Your task to perform on an android device: Clear the shopping cart on amazon. Image 0: 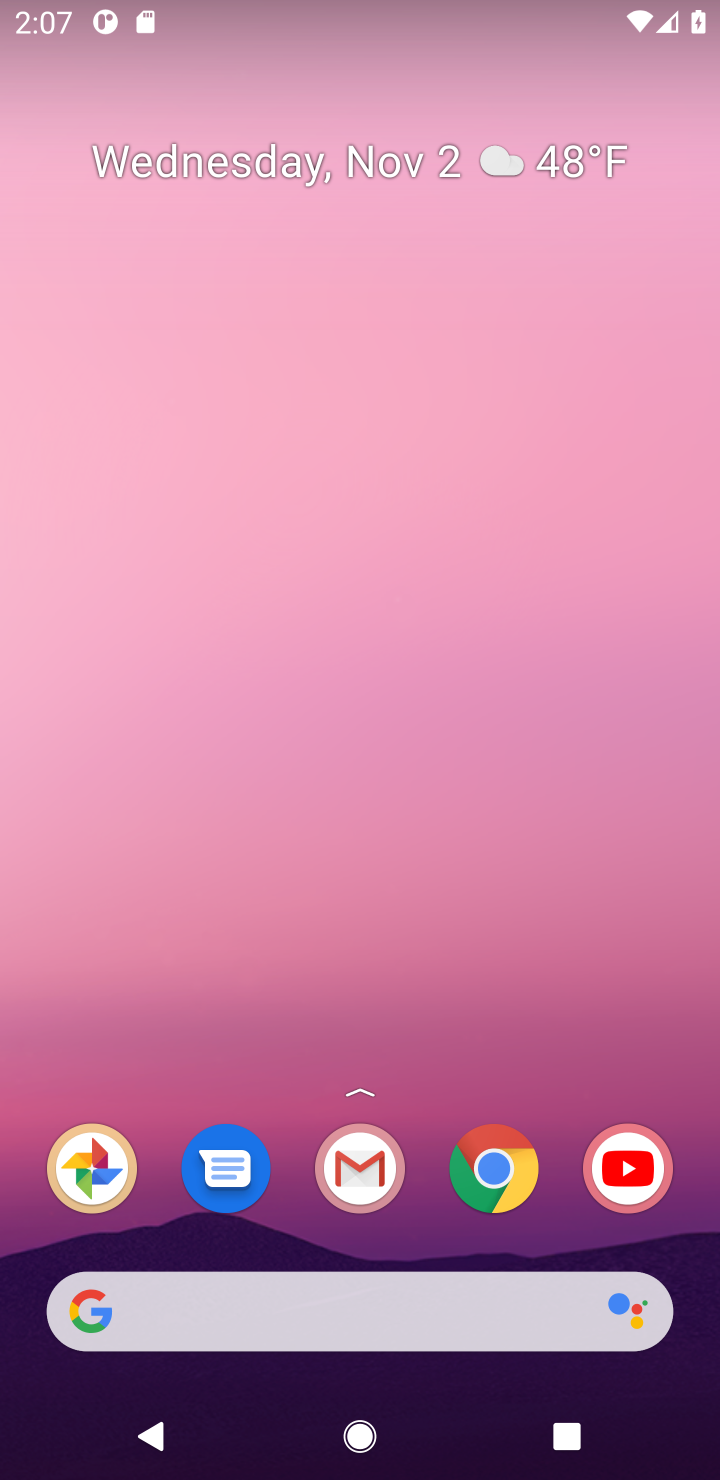
Step 0: click (324, 1310)
Your task to perform on an android device: Clear the shopping cart on amazon. Image 1: 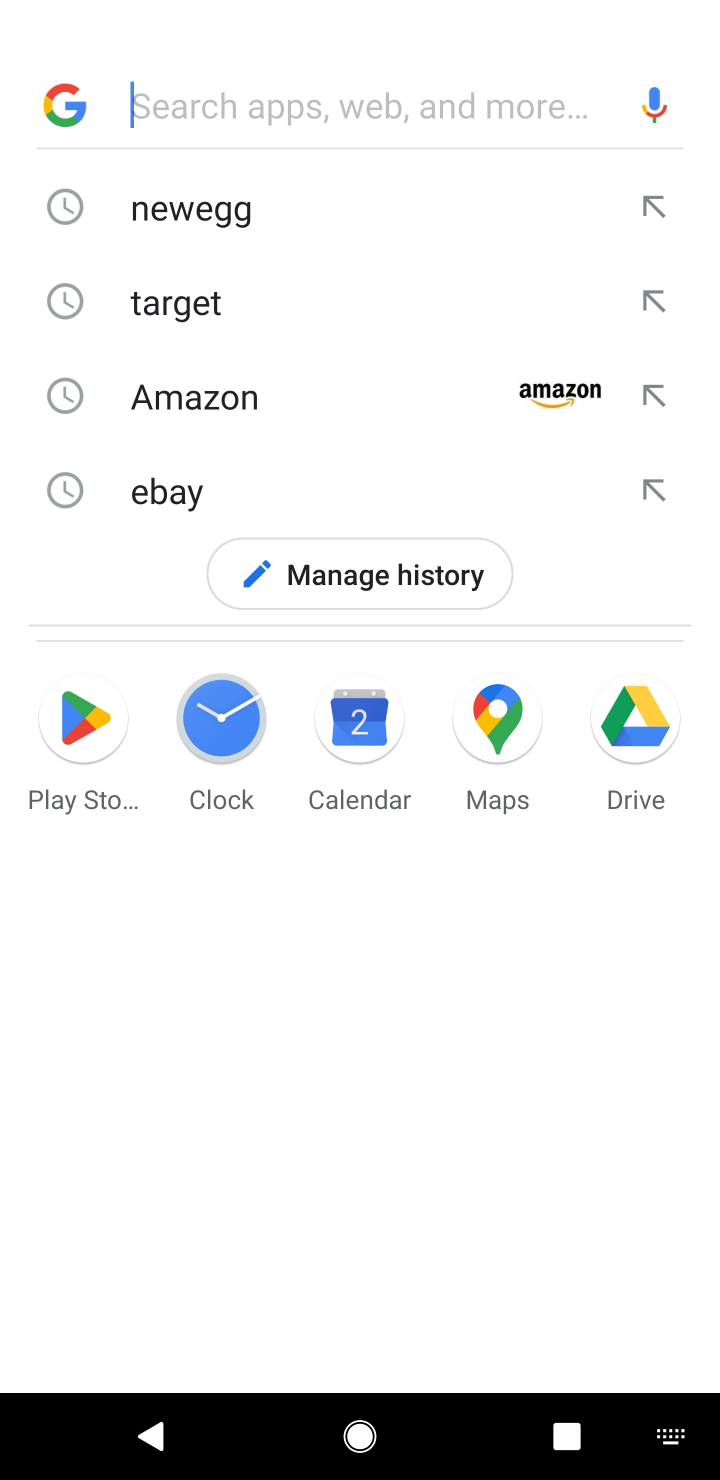
Step 1: type "amazon"
Your task to perform on an android device: Clear the shopping cart on amazon. Image 2: 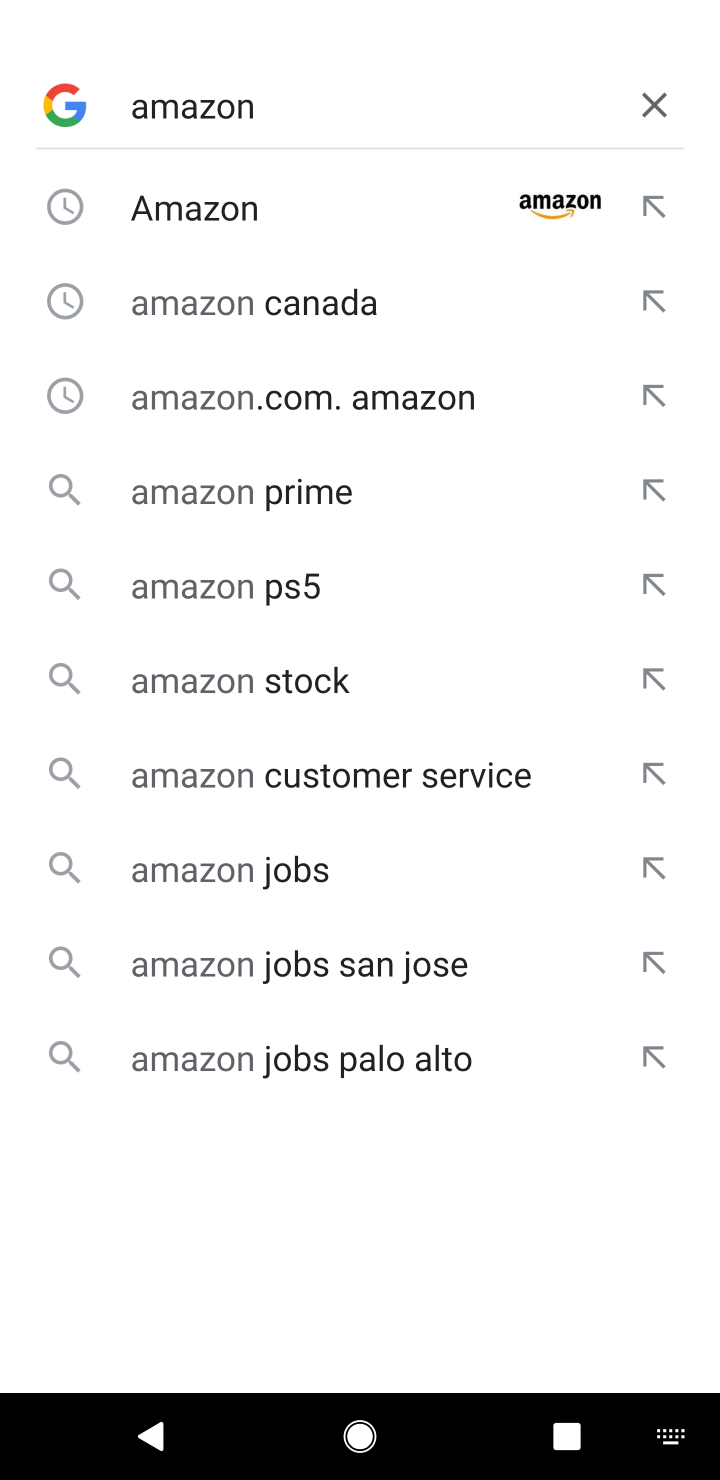
Step 2: click (269, 219)
Your task to perform on an android device: Clear the shopping cart on amazon. Image 3: 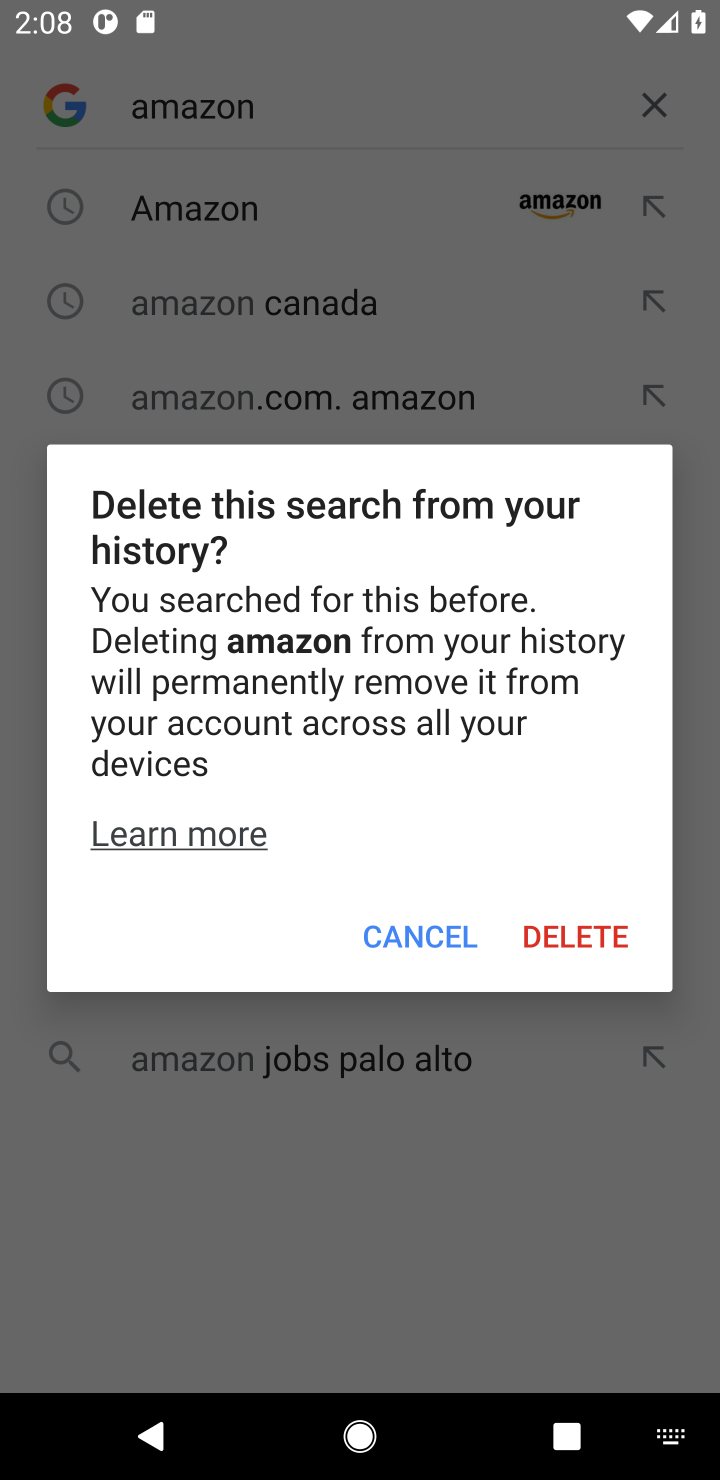
Step 3: click (439, 934)
Your task to perform on an android device: Clear the shopping cart on amazon. Image 4: 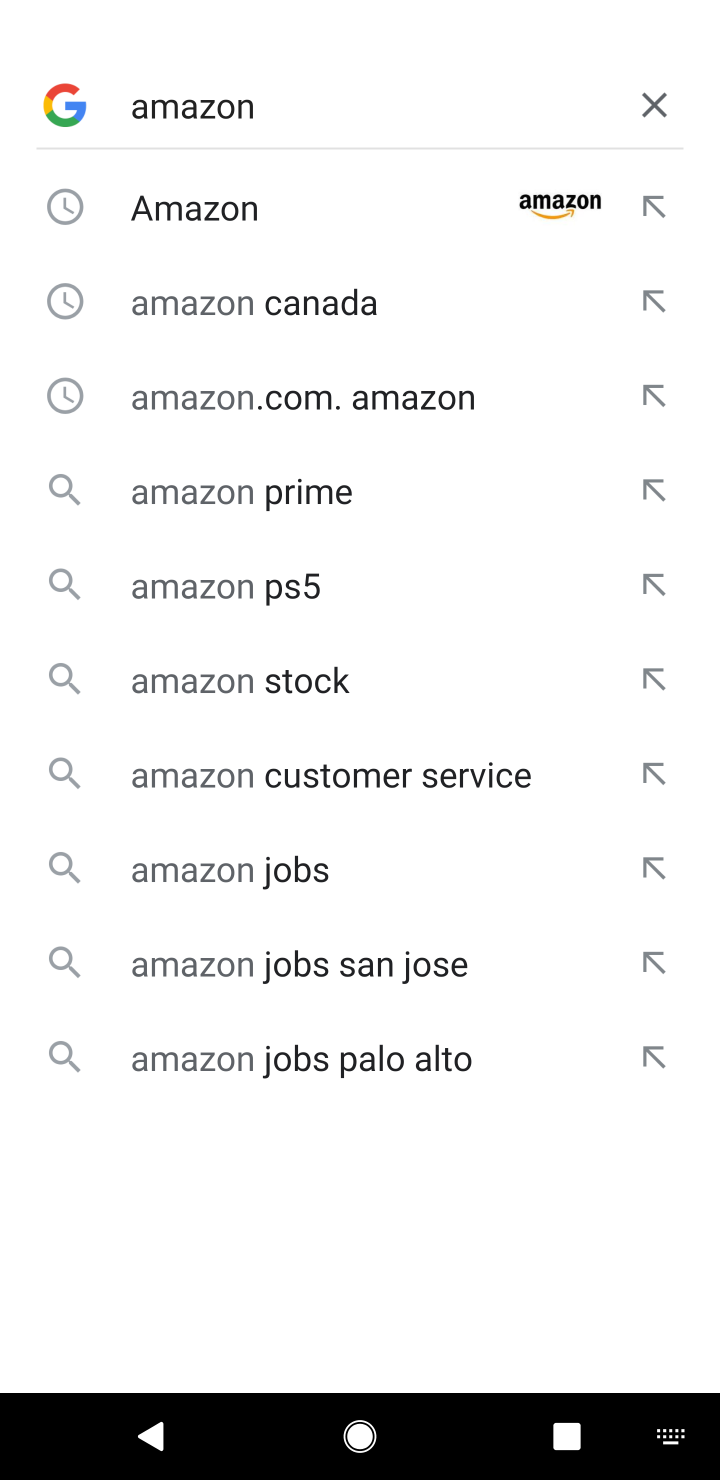
Step 4: click (273, 204)
Your task to perform on an android device: Clear the shopping cart on amazon. Image 5: 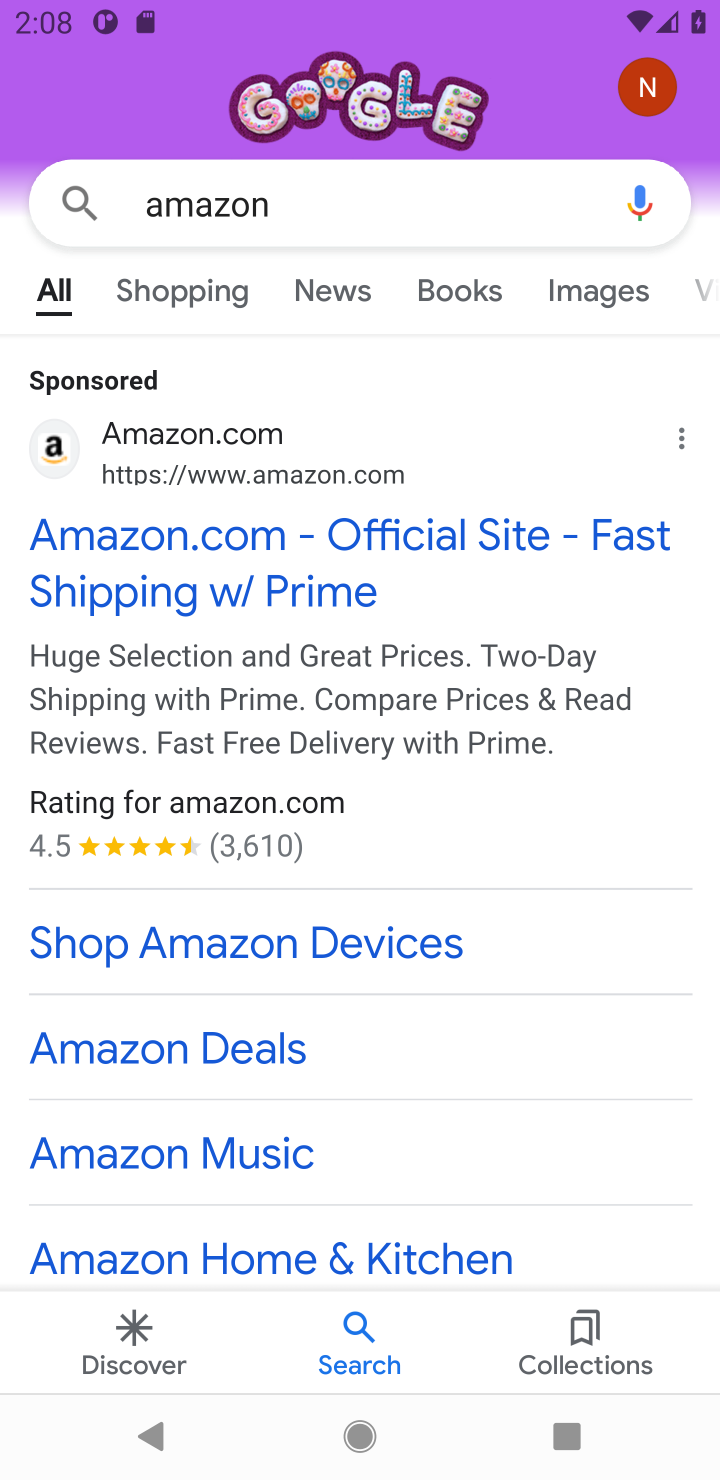
Step 5: click (123, 554)
Your task to perform on an android device: Clear the shopping cart on amazon. Image 6: 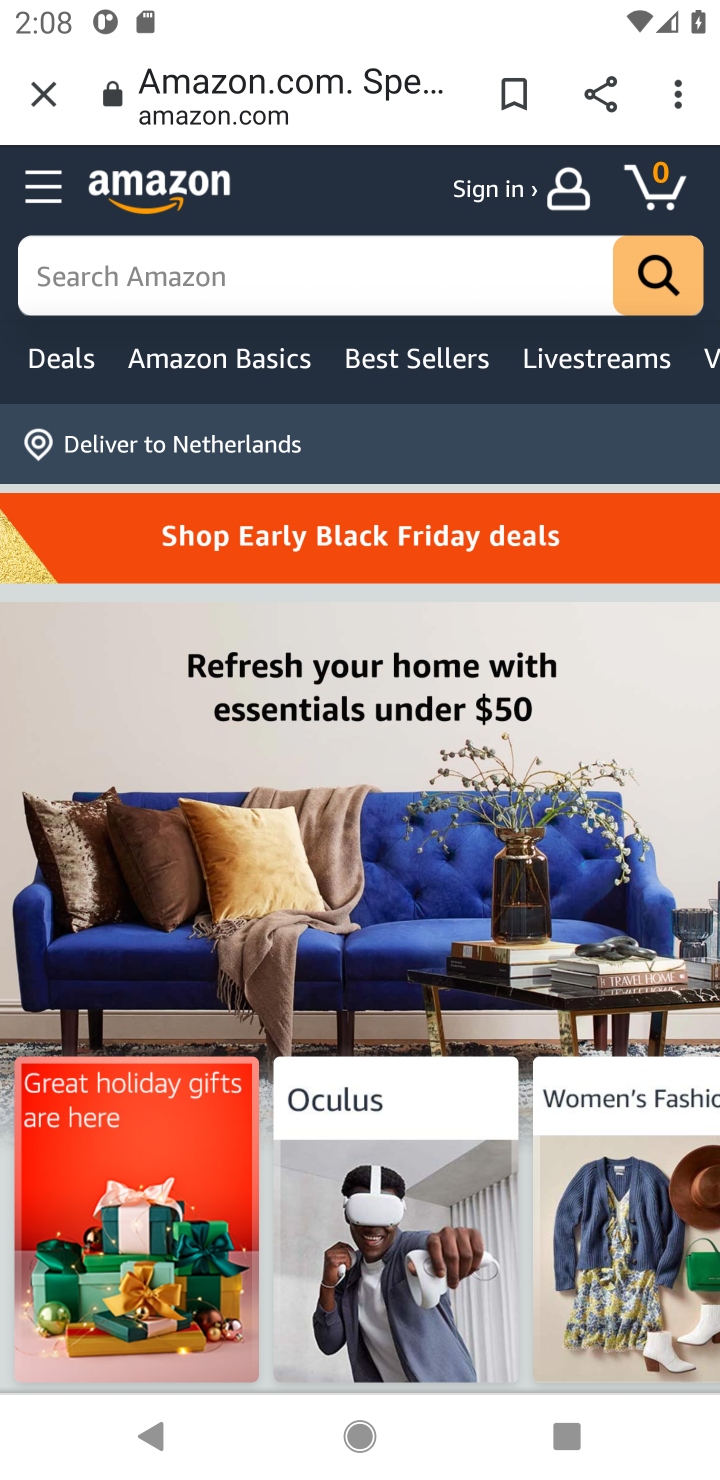
Step 6: click (670, 187)
Your task to perform on an android device: Clear the shopping cart on amazon. Image 7: 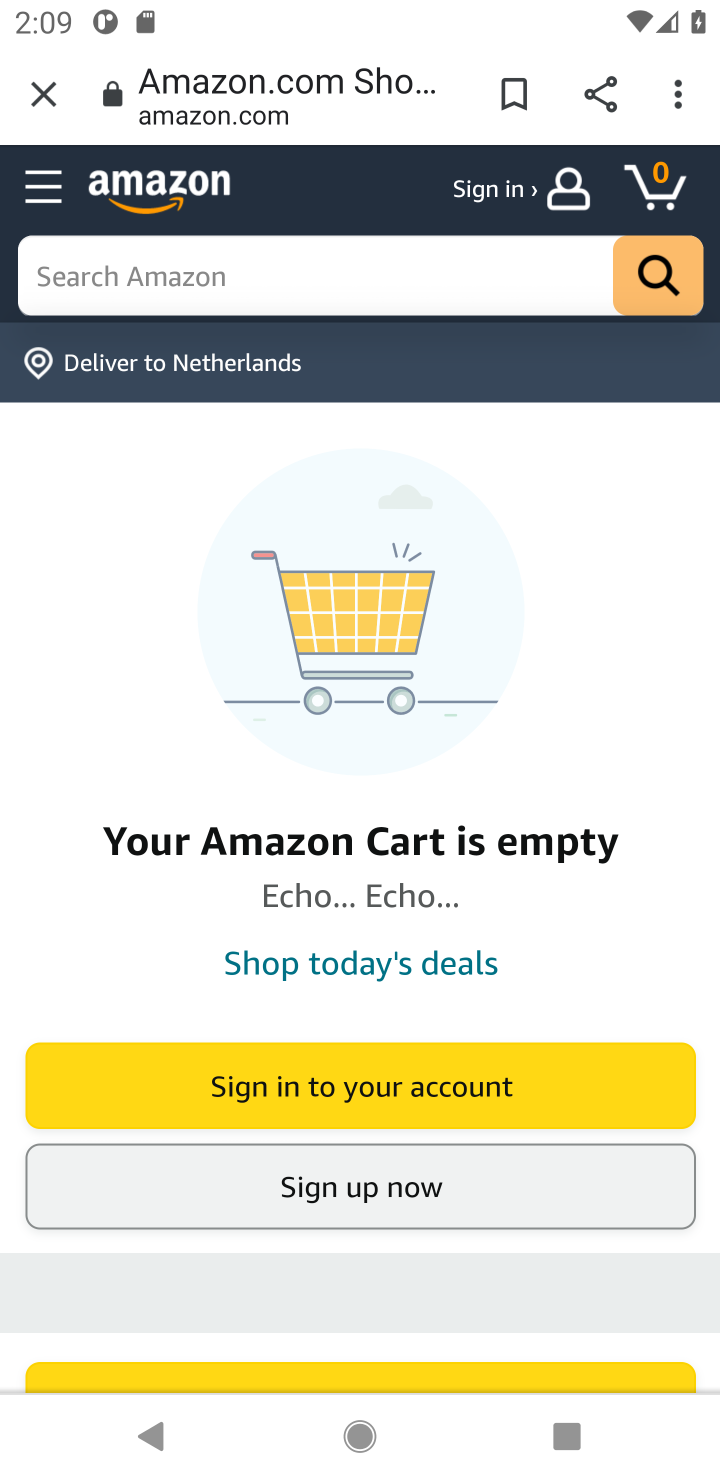
Step 7: task complete